Your task to perform on an android device: Go to wifi settings Image 0: 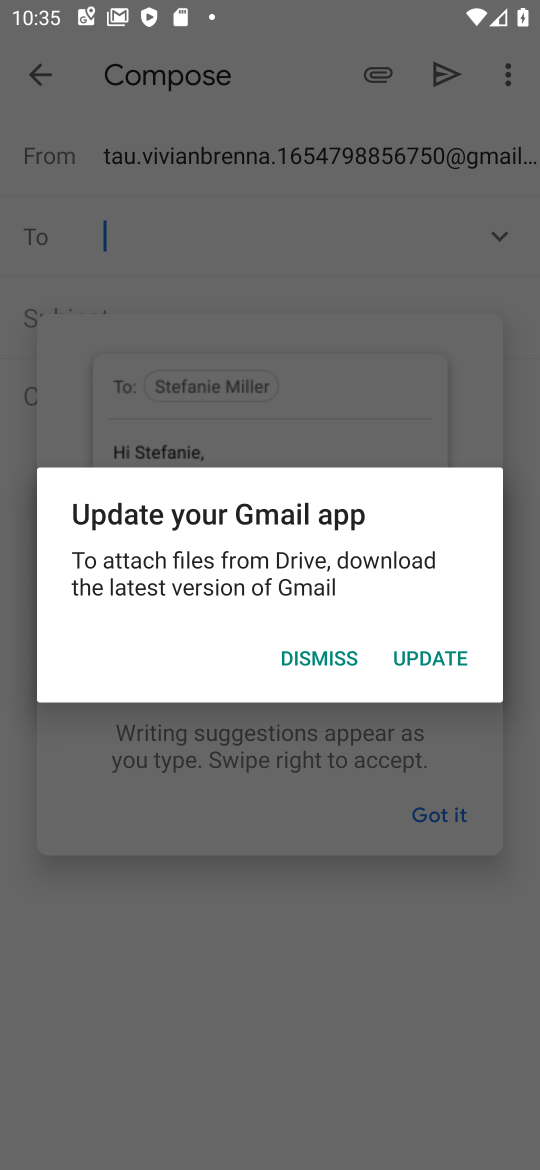
Step 0: press home button
Your task to perform on an android device: Go to wifi settings Image 1: 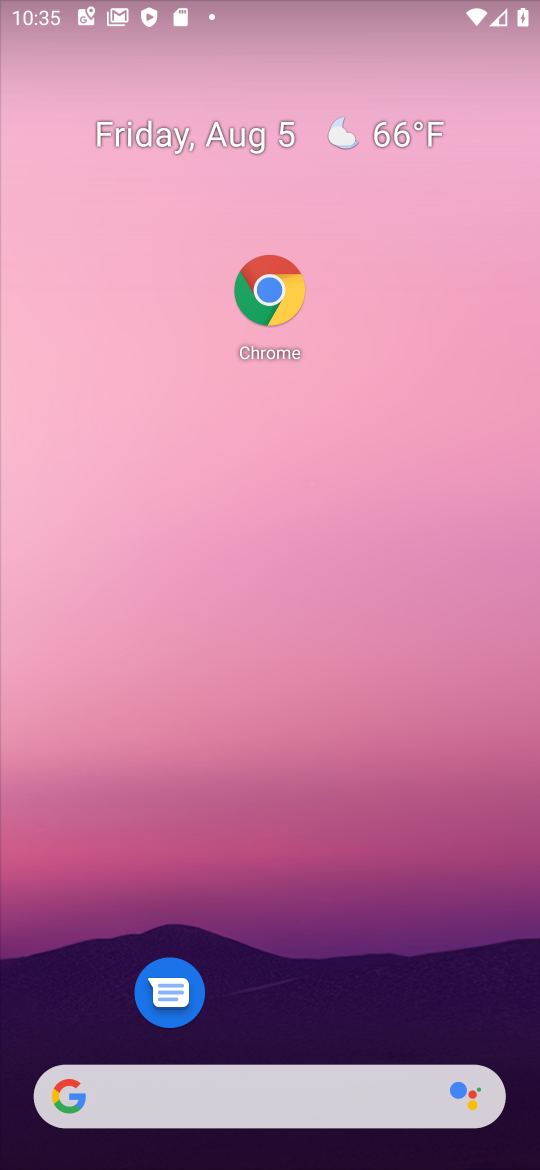
Step 1: drag from (244, 385) to (144, 2)
Your task to perform on an android device: Go to wifi settings Image 2: 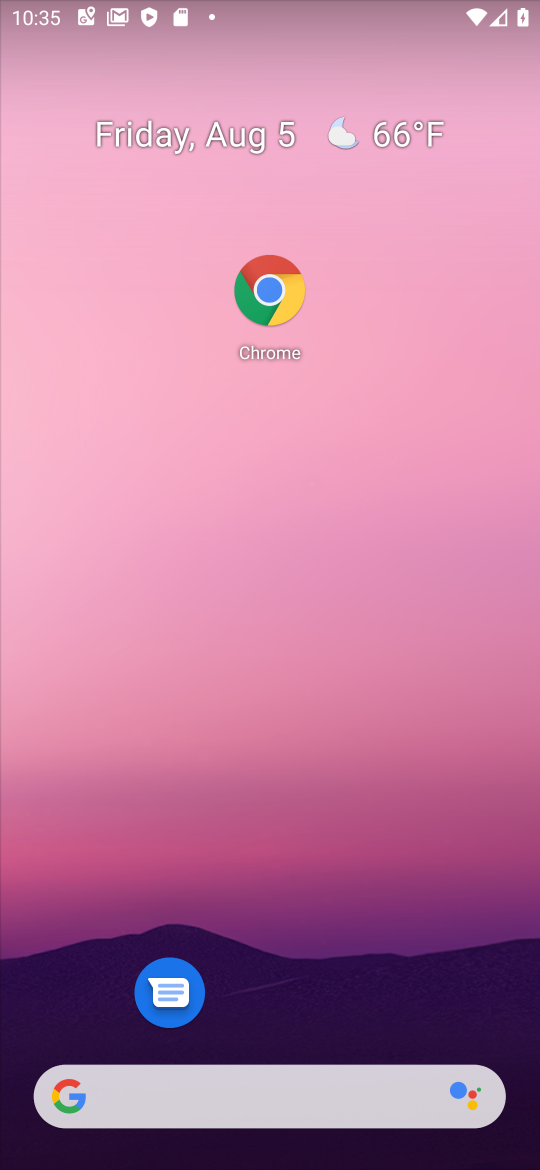
Step 2: drag from (326, 982) to (221, 22)
Your task to perform on an android device: Go to wifi settings Image 3: 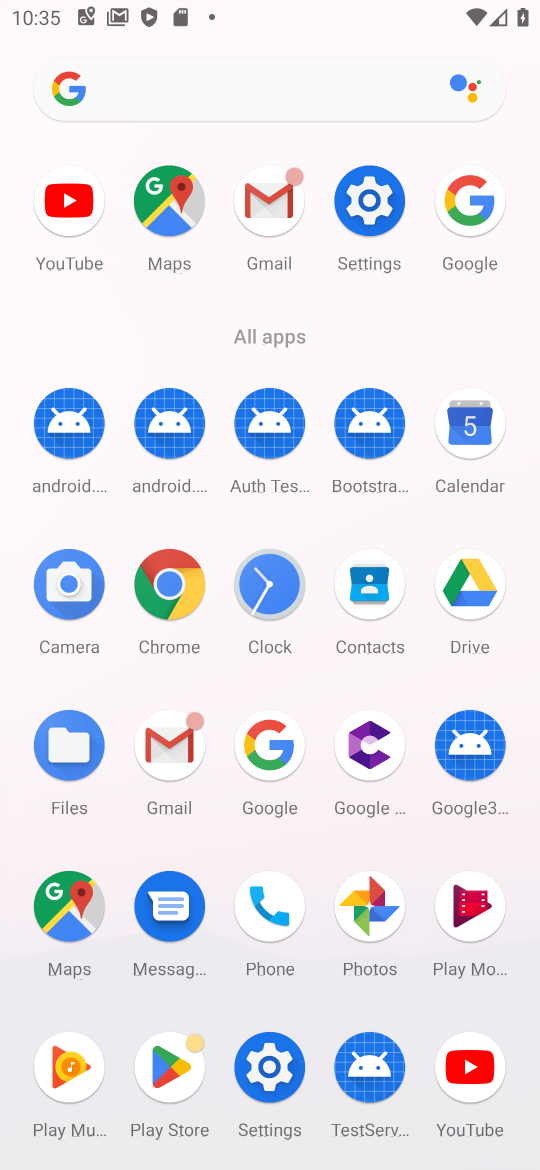
Step 3: click (358, 214)
Your task to perform on an android device: Go to wifi settings Image 4: 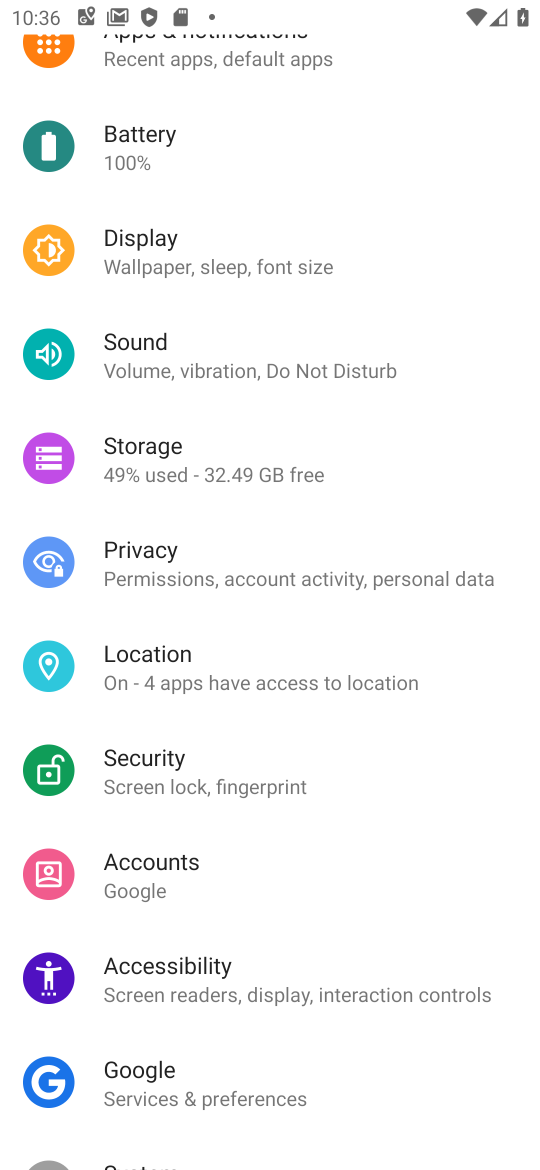
Step 4: drag from (336, 286) to (468, 1025)
Your task to perform on an android device: Go to wifi settings Image 5: 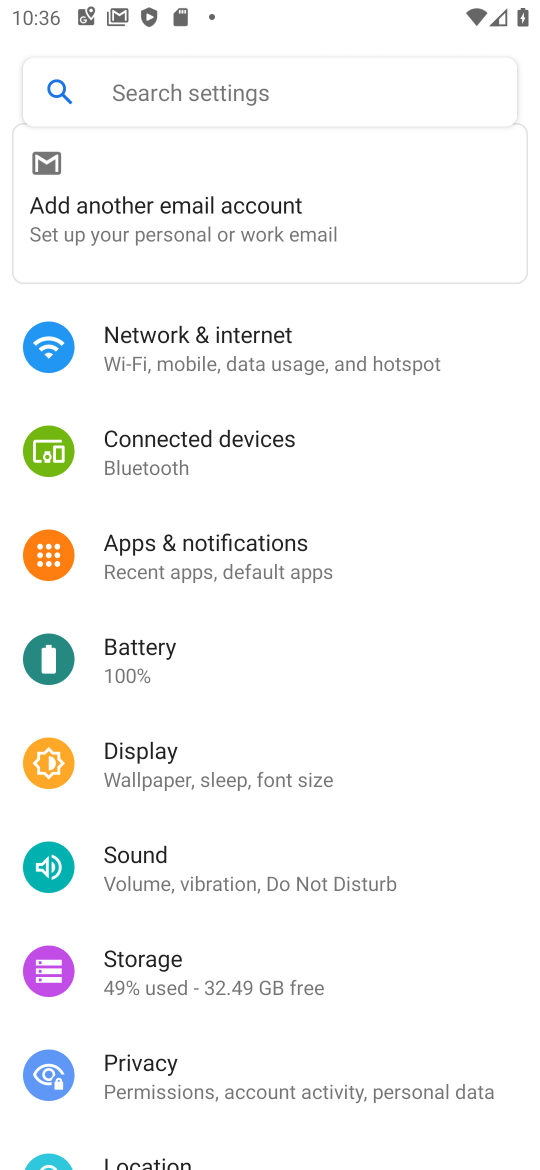
Step 5: click (140, 374)
Your task to perform on an android device: Go to wifi settings Image 6: 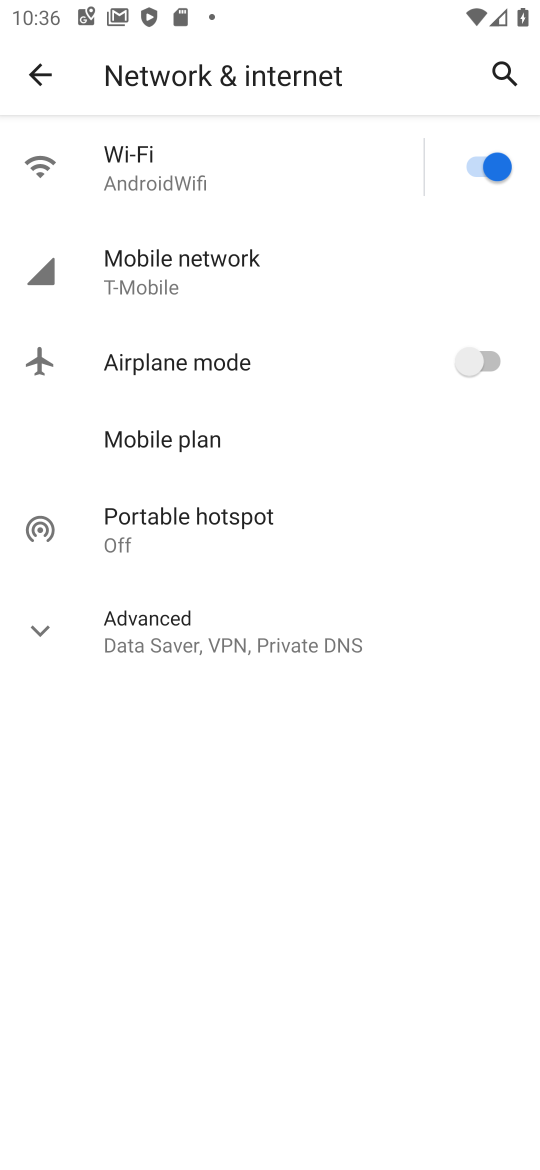
Step 6: click (122, 173)
Your task to perform on an android device: Go to wifi settings Image 7: 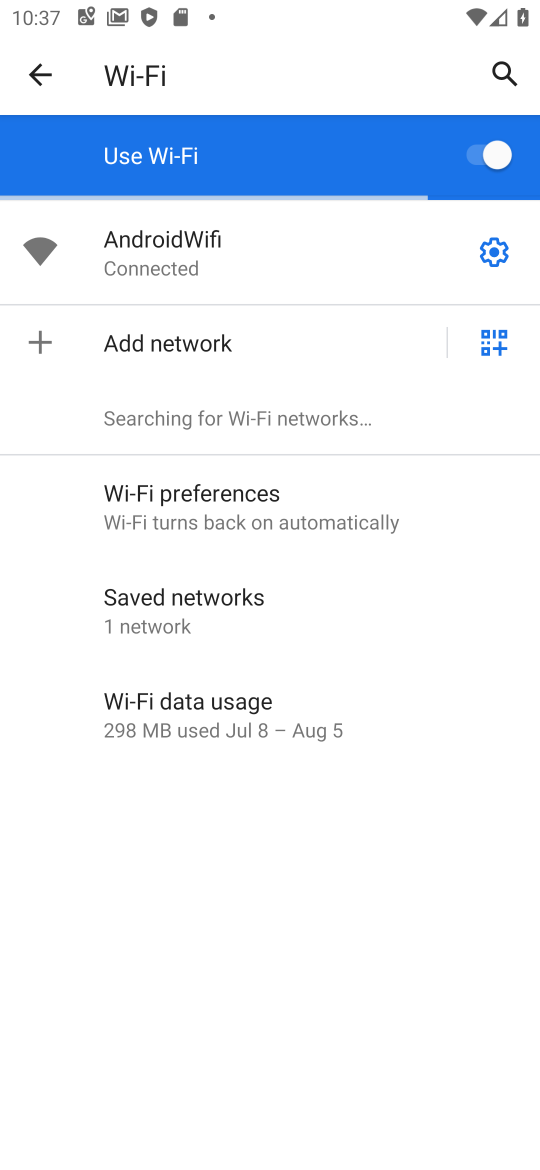
Step 7: task complete